Your task to perform on an android device: delete browsing data in the chrome app Image 0: 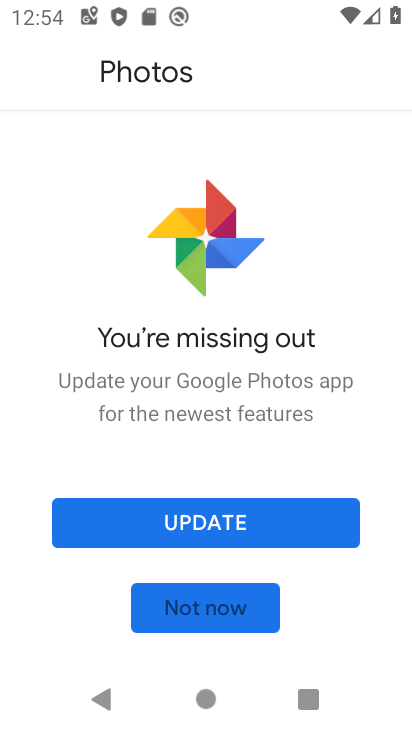
Step 0: press home button
Your task to perform on an android device: delete browsing data in the chrome app Image 1: 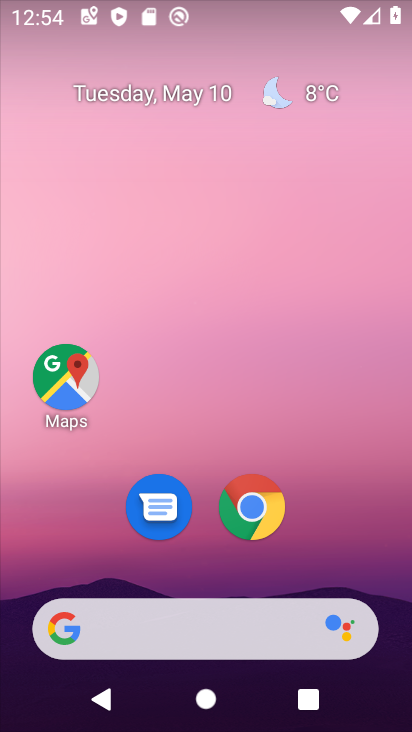
Step 1: click (253, 506)
Your task to perform on an android device: delete browsing data in the chrome app Image 2: 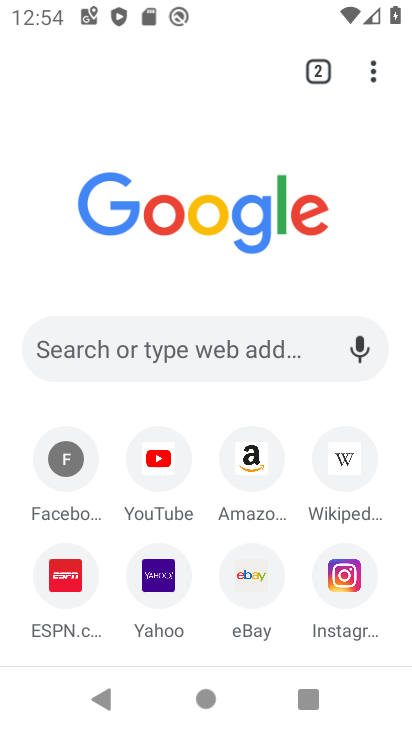
Step 2: click (377, 78)
Your task to perform on an android device: delete browsing data in the chrome app Image 3: 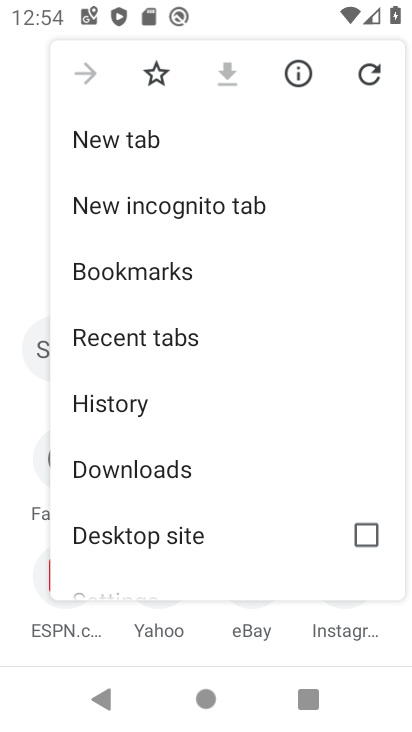
Step 3: drag from (161, 562) to (174, 234)
Your task to perform on an android device: delete browsing data in the chrome app Image 4: 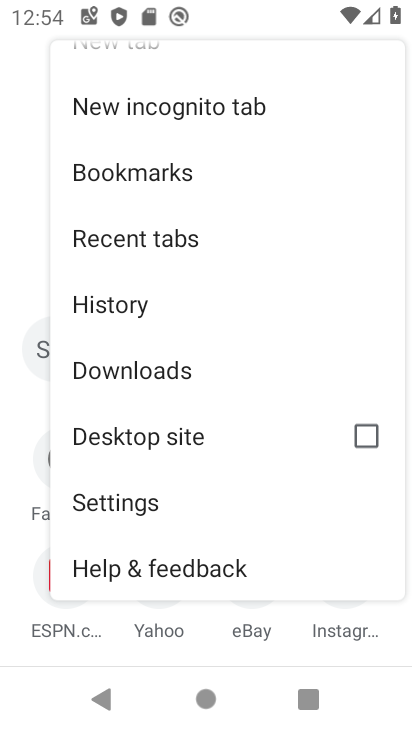
Step 4: click (131, 499)
Your task to perform on an android device: delete browsing data in the chrome app Image 5: 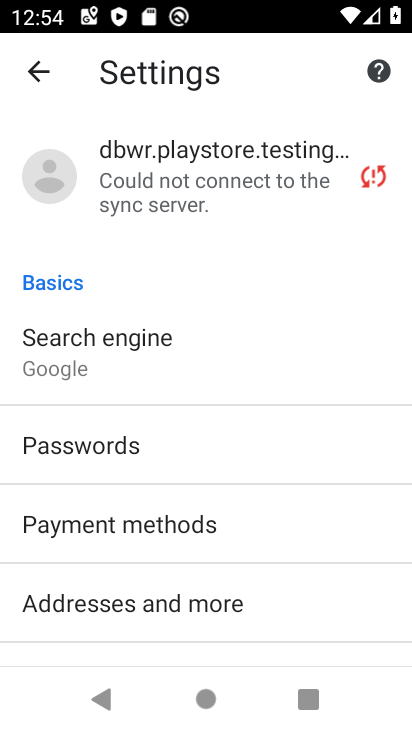
Step 5: drag from (139, 621) to (155, 141)
Your task to perform on an android device: delete browsing data in the chrome app Image 6: 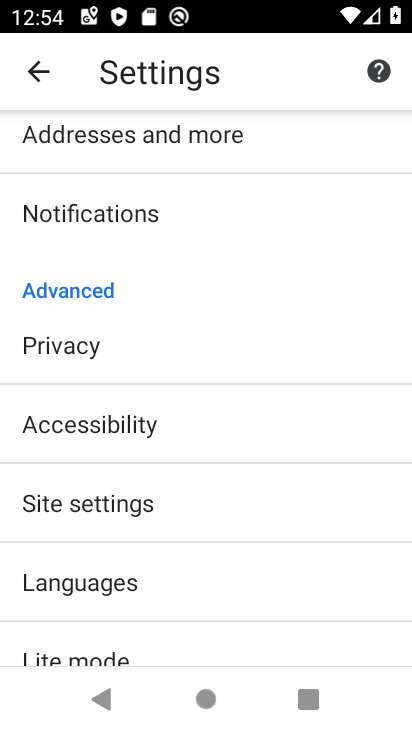
Step 6: click (69, 341)
Your task to perform on an android device: delete browsing data in the chrome app Image 7: 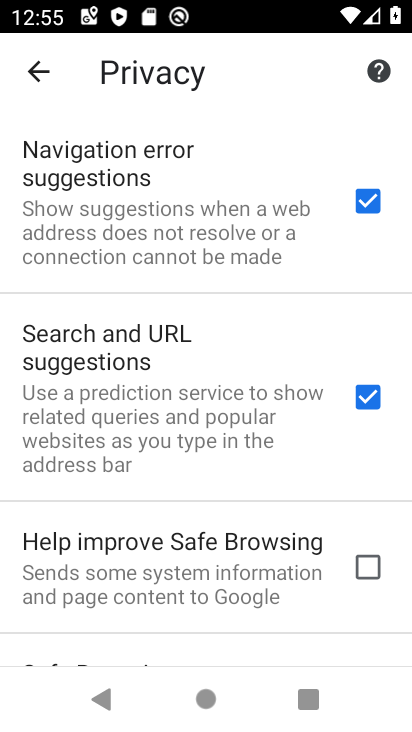
Step 7: drag from (185, 540) to (189, 341)
Your task to perform on an android device: delete browsing data in the chrome app Image 8: 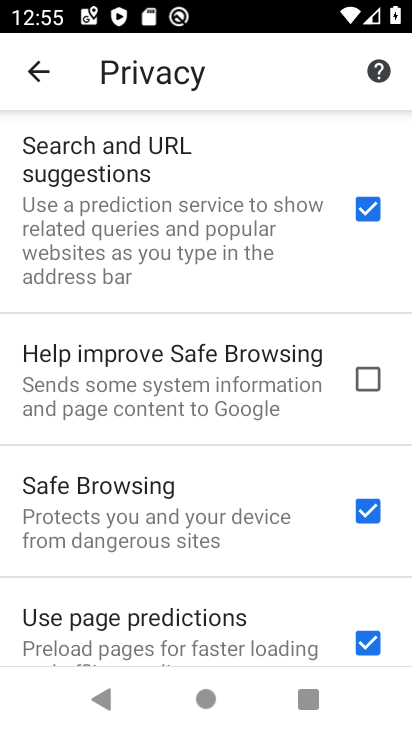
Step 8: drag from (168, 613) to (162, 171)
Your task to perform on an android device: delete browsing data in the chrome app Image 9: 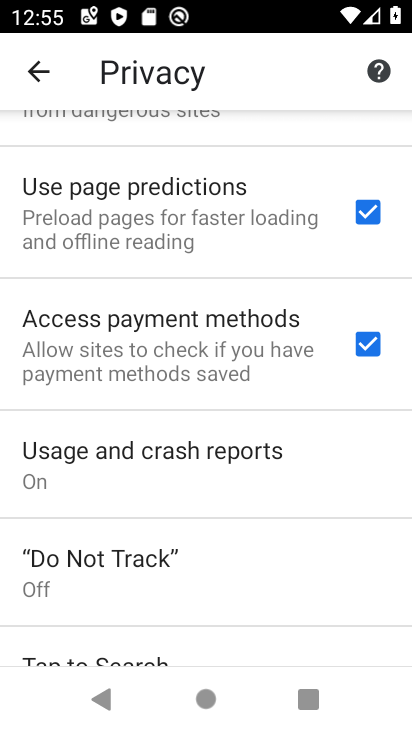
Step 9: drag from (205, 641) to (198, 237)
Your task to perform on an android device: delete browsing data in the chrome app Image 10: 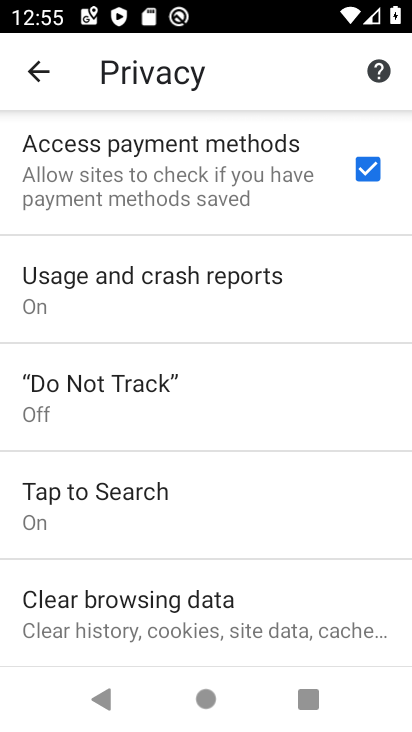
Step 10: click (202, 602)
Your task to perform on an android device: delete browsing data in the chrome app Image 11: 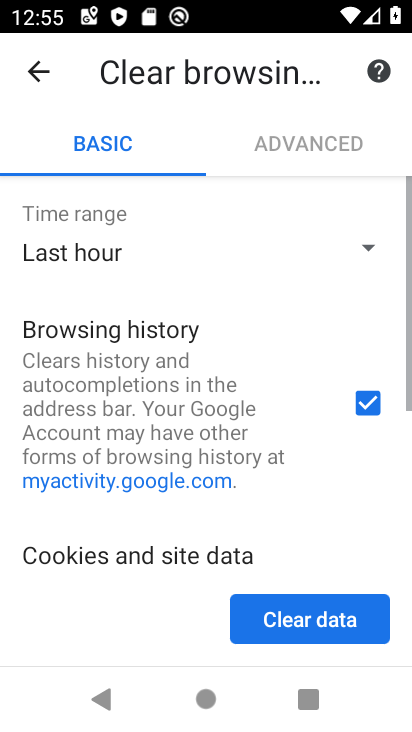
Step 11: drag from (294, 465) to (294, 178)
Your task to perform on an android device: delete browsing data in the chrome app Image 12: 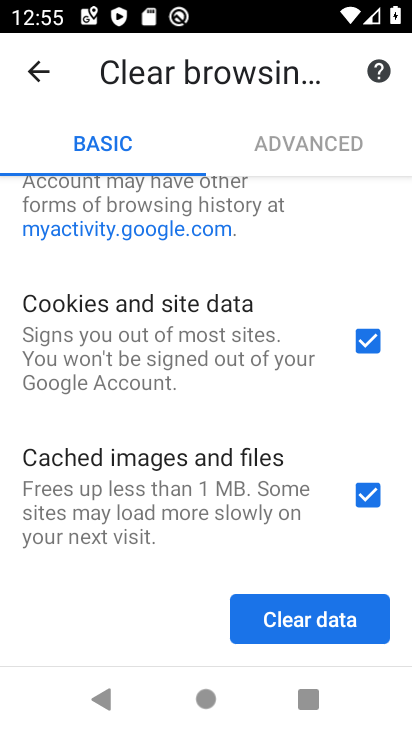
Step 12: click (360, 336)
Your task to perform on an android device: delete browsing data in the chrome app Image 13: 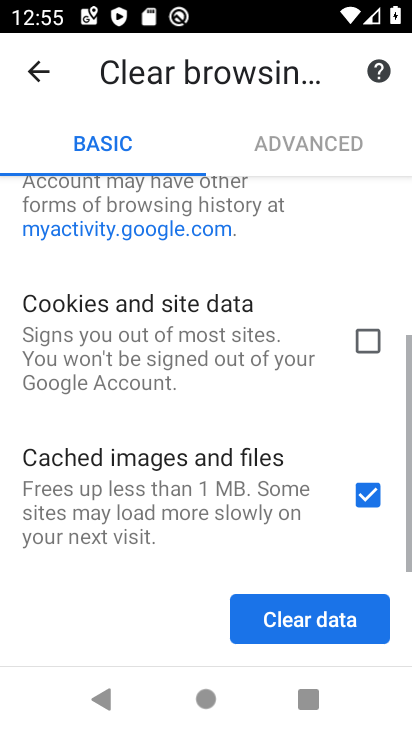
Step 13: click (370, 496)
Your task to perform on an android device: delete browsing data in the chrome app Image 14: 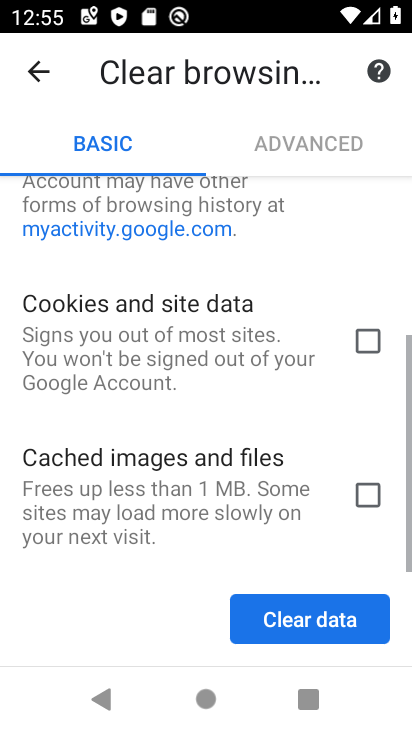
Step 14: drag from (296, 268) to (312, 419)
Your task to perform on an android device: delete browsing data in the chrome app Image 15: 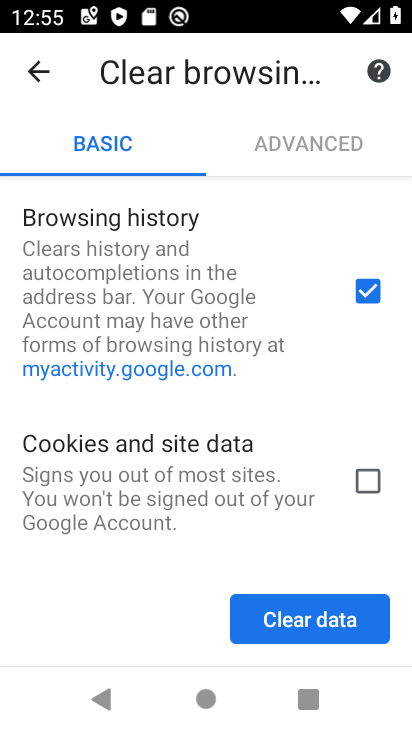
Step 15: click (300, 622)
Your task to perform on an android device: delete browsing data in the chrome app Image 16: 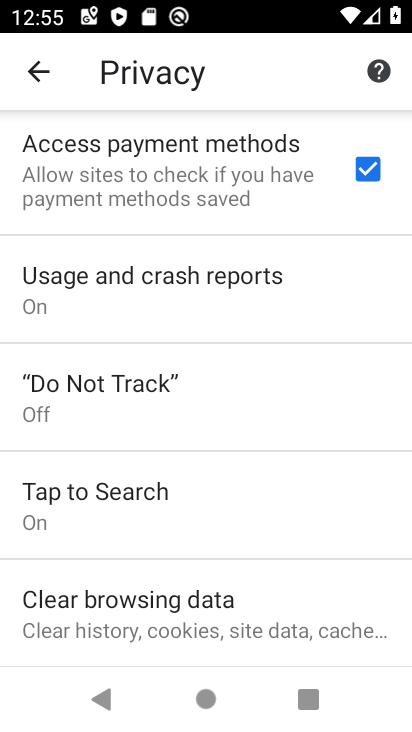
Step 16: task complete